Your task to perform on an android device: Turn off the flashlight Image 0: 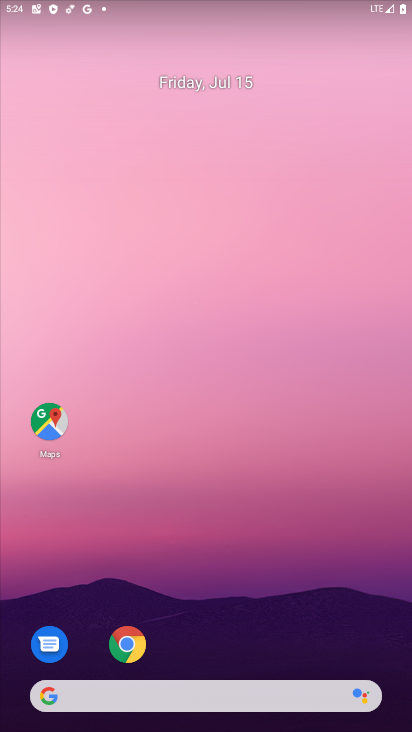
Step 0: drag from (179, 589) to (176, 223)
Your task to perform on an android device: Turn off the flashlight Image 1: 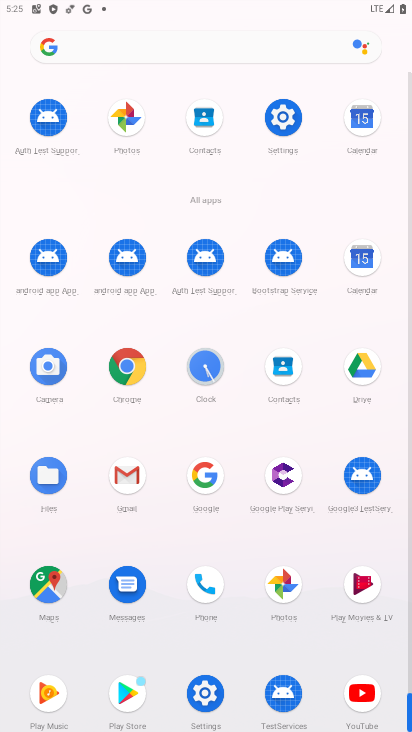
Step 1: click (274, 114)
Your task to perform on an android device: Turn off the flashlight Image 2: 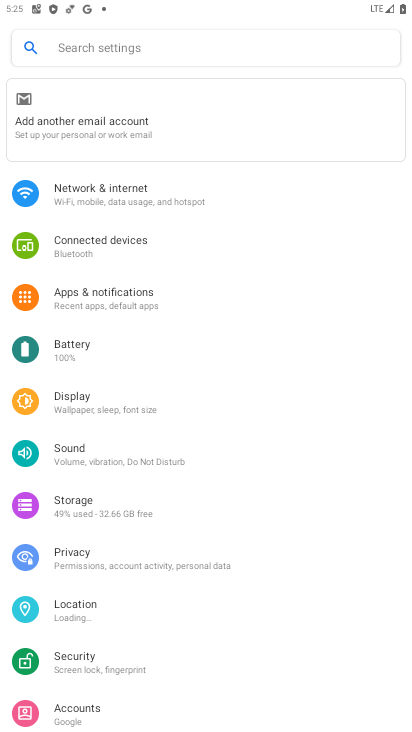
Step 2: task complete